Your task to perform on an android device: Show me productivity apps on the Play Store Image 0: 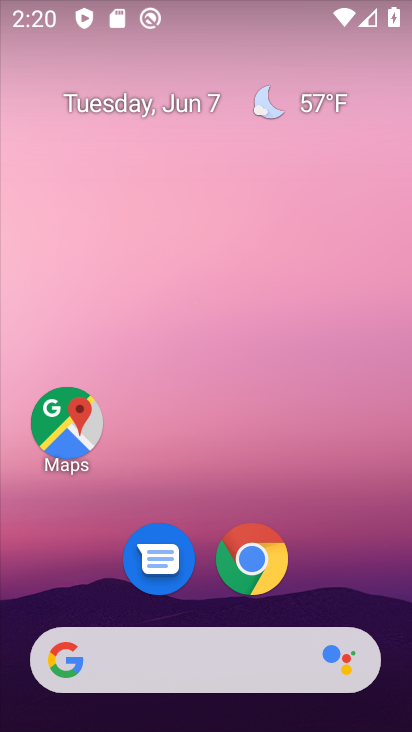
Step 0: drag from (335, 605) to (251, 16)
Your task to perform on an android device: Show me productivity apps on the Play Store Image 1: 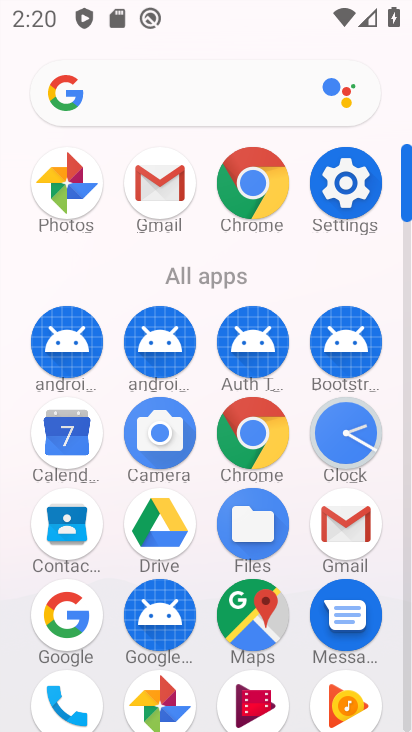
Step 1: drag from (16, 610) to (29, 205)
Your task to perform on an android device: Show me productivity apps on the Play Store Image 2: 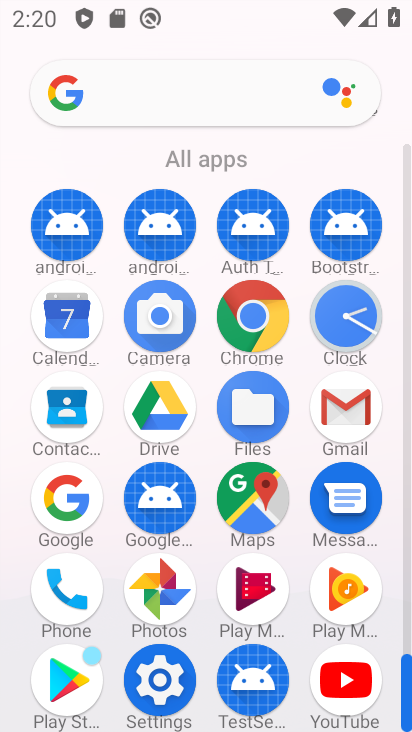
Step 2: click (59, 680)
Your task to perform on an android device: Show me productivity apps on the Play Store Image 3: 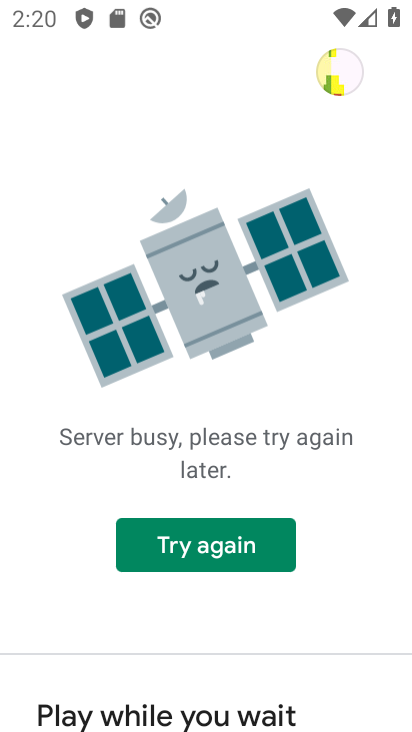
Step 3: click (252, 542)
Your task to perform on an android device: Show me productivity apps on the Play Store Image 4: 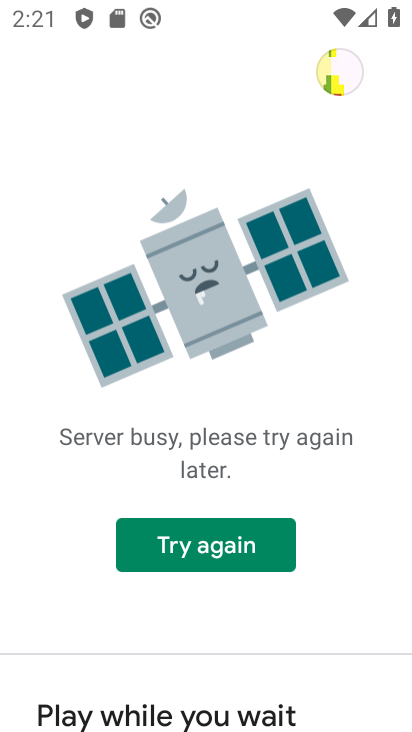
Step 4: task complete